Your task to perform on an android device: Open Yahoo.com Image 0: 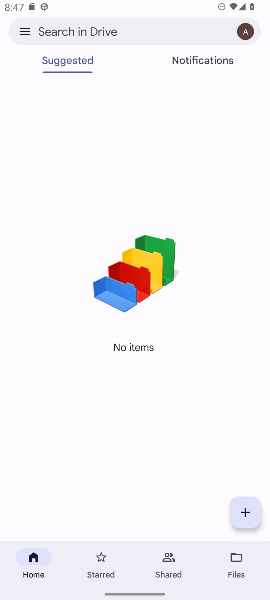
Step 0: press home button
Your task to perform on an android device: Open Yahoo.com Image 1: 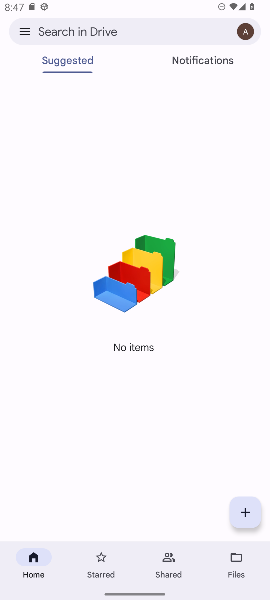
Step 1: press home button
Your task to perform on an android device: Open Yahoo.com Image 2: 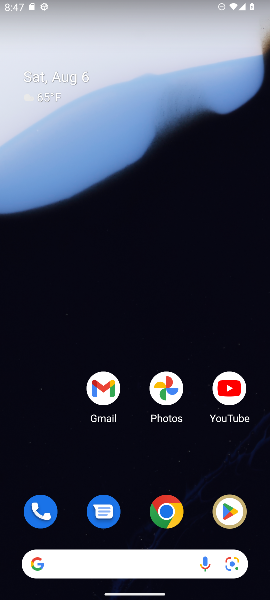
Step 2: click (182, 513)
Your task to perform on an android device: Open Yahoo.com Image 3: 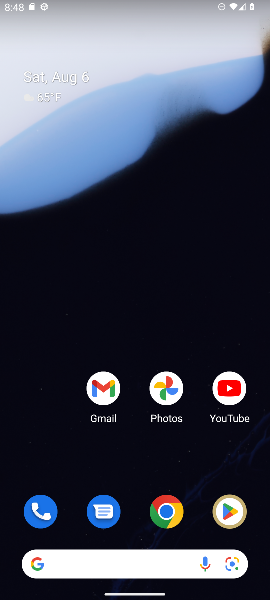
Step 3: click (149, 527)
Your task to perform on an android device: Open Yahoo.com Image 4: 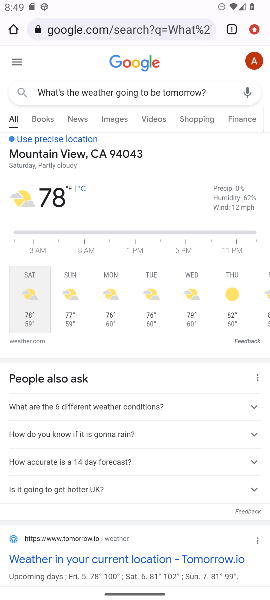
Step 4: click (138, 29)
Your task to perform on an android device: Open Yahoo.com Image 5: 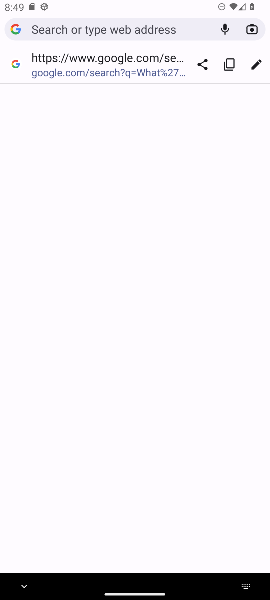
Step 5: type " Yahoo.com"
Your task to perform on an android device: Open Yahoo.com Image 6: 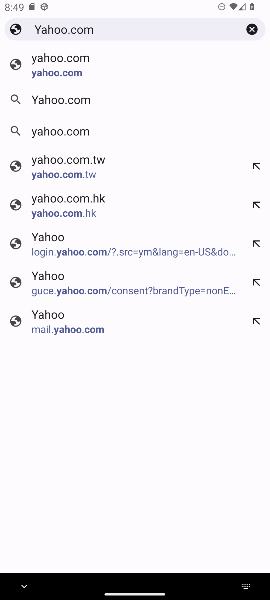
Step 6: click (153, 57)
Your task to perform on an android device: Open Yahoo.com Image 7: 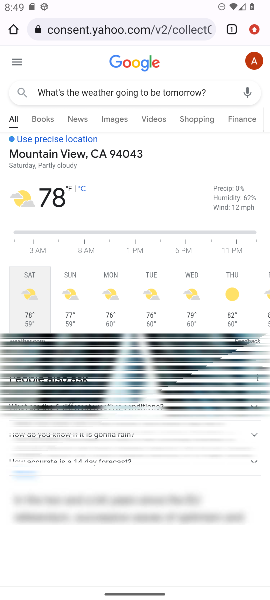
Step 7: task complete